Your task to perform on an android device: check storage Image 0: 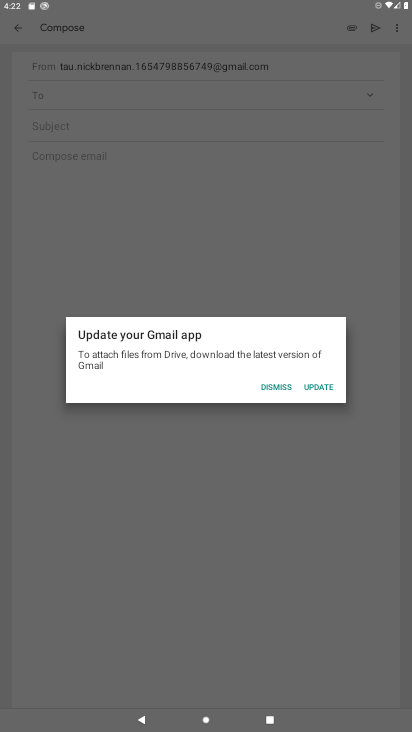
Step 0: press home button
Your task to perform on an android device: check storage Image 1: 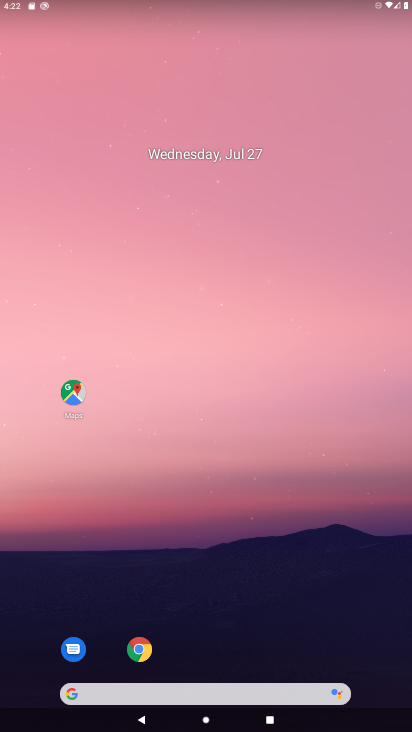
Step 1: drag from (293, 582) to (249, 146)
Your task to perform on an android device: check storage Image 2: 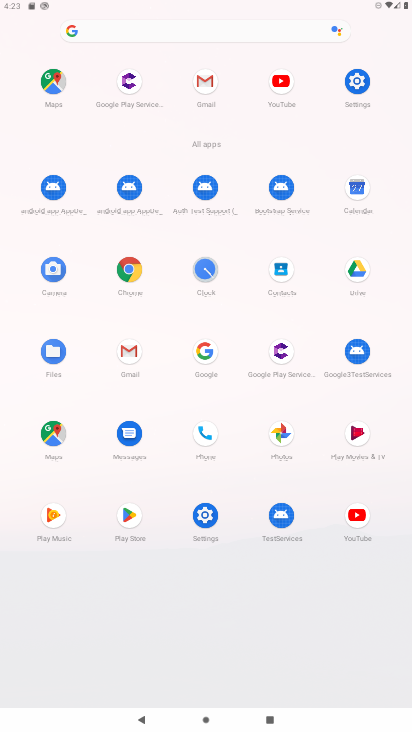
Step 2: click (210, 509)
Your task to perform on an android device: check storage Image 3: 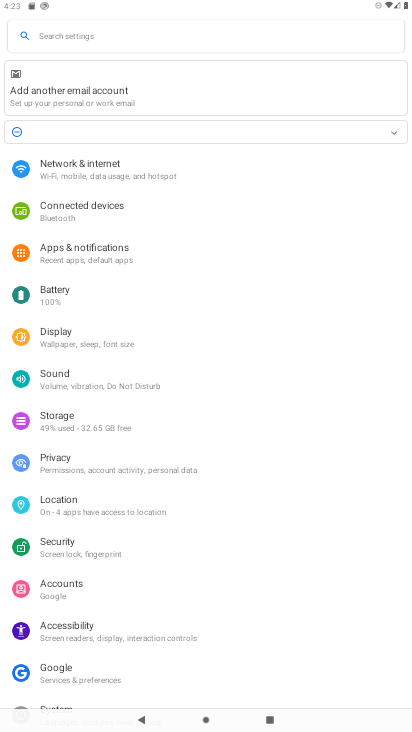
Step 3: click (75, 421)
Your task to perform on an android device: check storage Image 4: 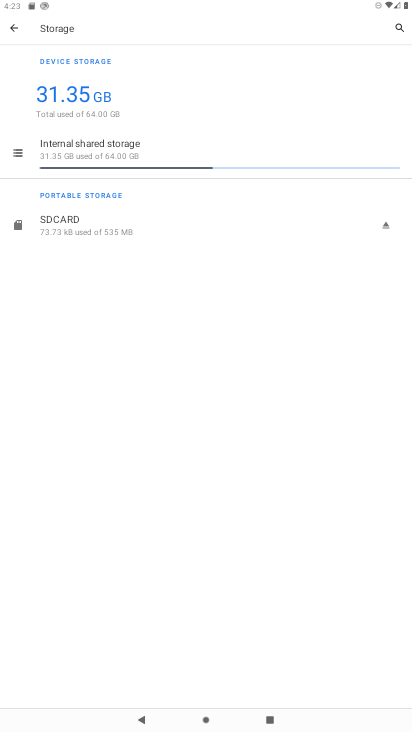
Step 4: task complete